Your task to perform on an android device: all mails in gmail Image 0: 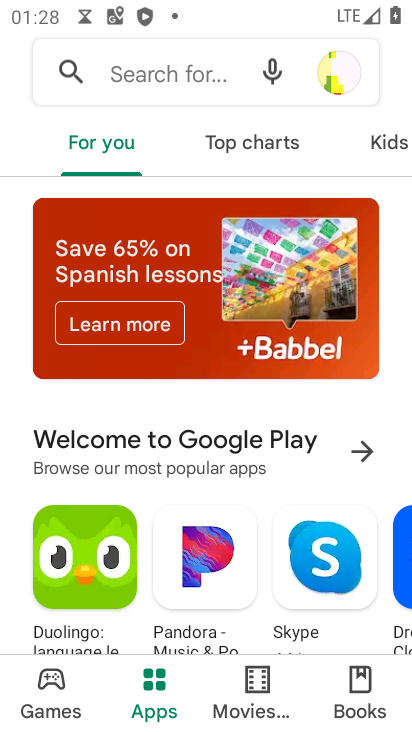
Step 0: press home button
Your task to perform on an android device: all mails in gmail Image 1: 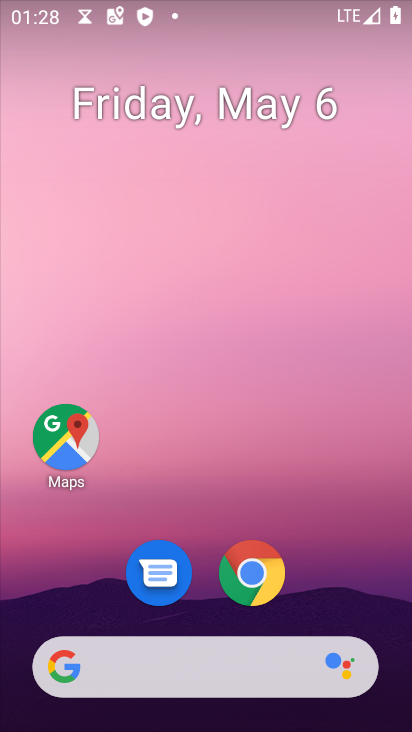
Step 1: drag from (337, 563) to (371, 225)
Your task to perform on an android device: all mails in gmail Image 2: 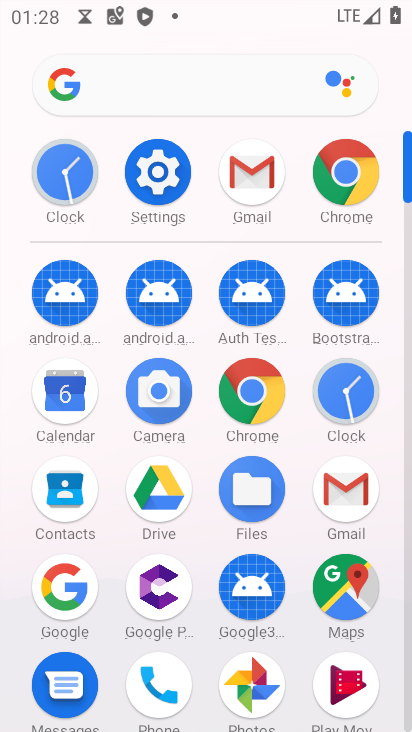
Step 2: click (243, 175)
Your task to perform on an android device: all mails in gmail Image 3: 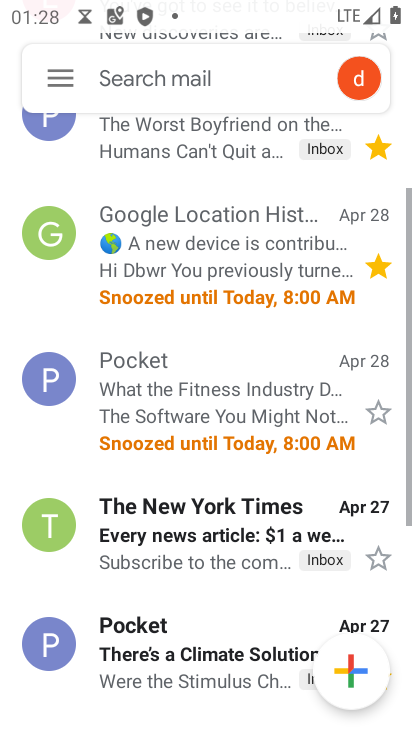
Step 3: click (61, 65)
Your task to perform on an android device: all mails in gmail Image 4: 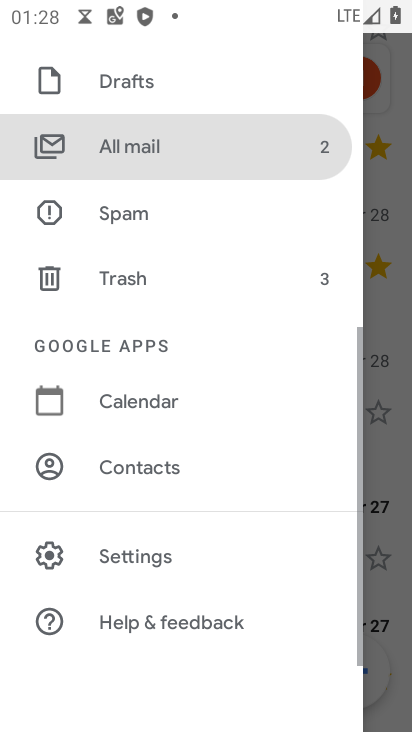
Step 4: click (153, 140)
Your task to perform on an android device: all mails in gmail Image 5: 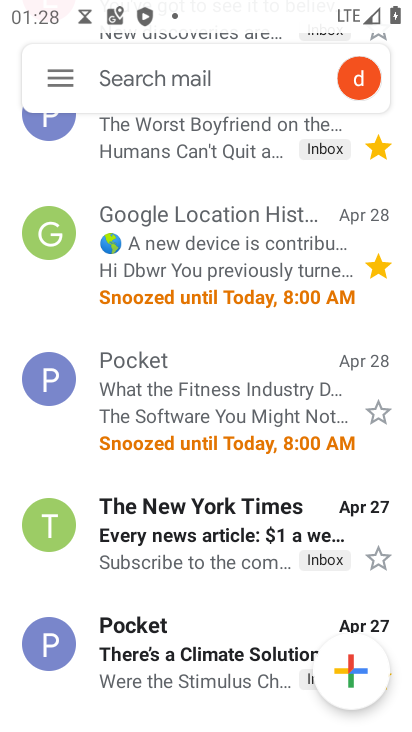
Step 5: task complete